Your task to perform on an android device: Search for the best selling phone on AliExpress Image 0: 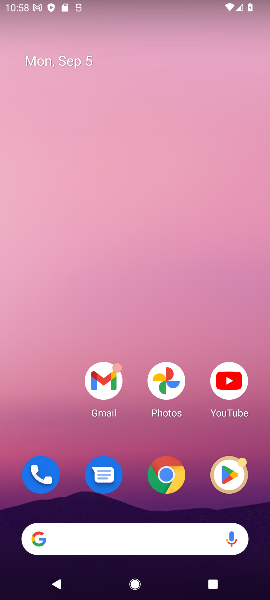
Step 0: click (138, 529)
Your task to perform on an android device: Search for the best selling phone on AliExpress Image 1: 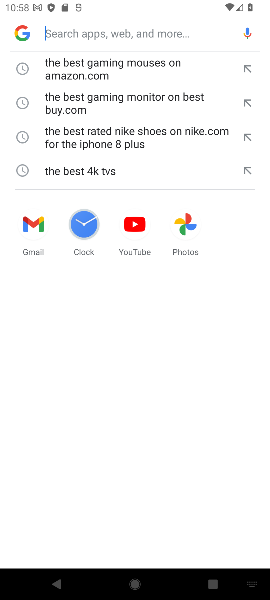
Step 1: type " the best selling phone on AliExpress"
Your task to perform on an android device: Search for the best selling phone on AliExpress Image 2: 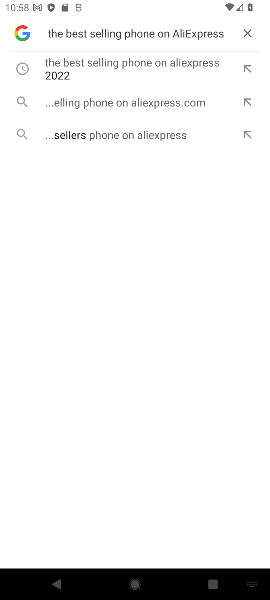
Step 2: click (135, 103)
Your task to perform on an android device: Search for the best selling phone on AliExpress Image 3: 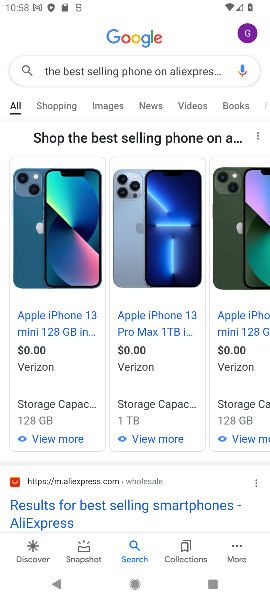
Step 3: task complete